Your task to perform on an android device: See recent photos Image 0: 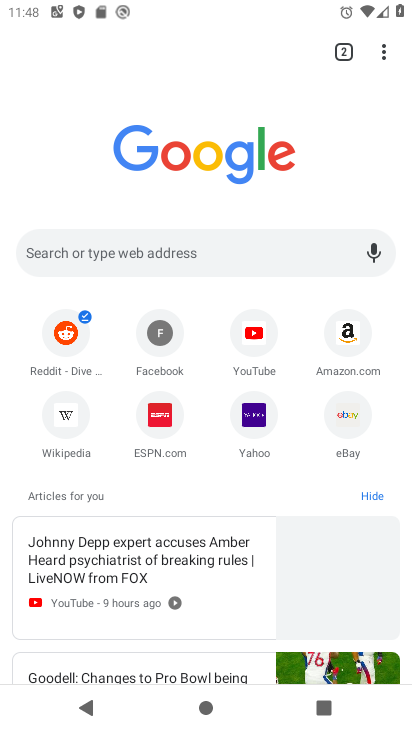
Step 0: press home button
Your task to perform on an android device: See recent photos Image 1: 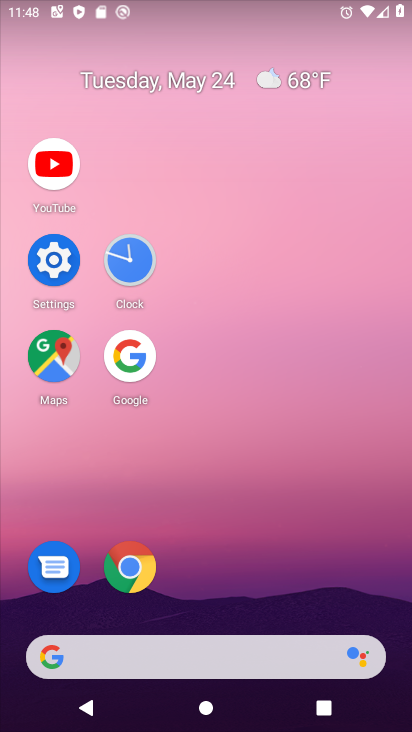
Step 1: drag from (267, 603) to (375, 114)
Your task to perform on an android device: See recent photos Image 2: 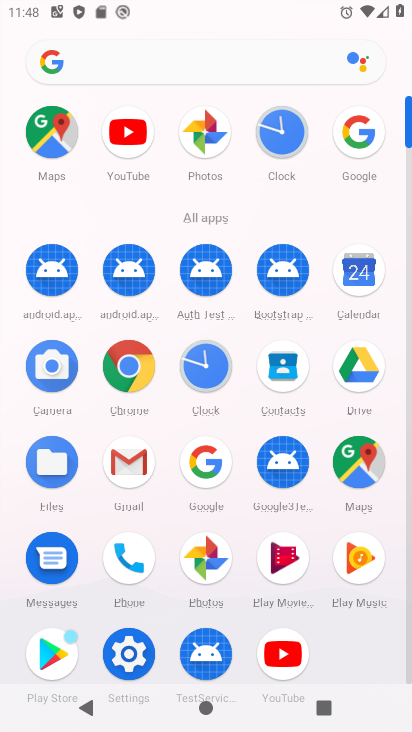
Step 2: drag from (202, 554) to (179, 348)
Your task to perform on an android device: See recent photos Image 3: 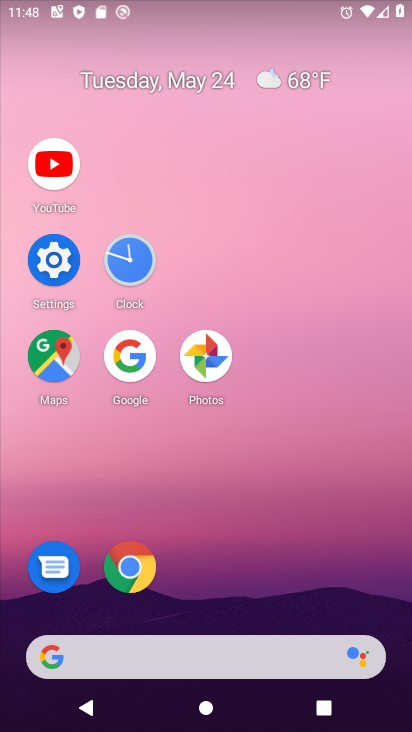
Step 3: click (199, 366)
Your task to perform on an android device: See recent photos Image 4: 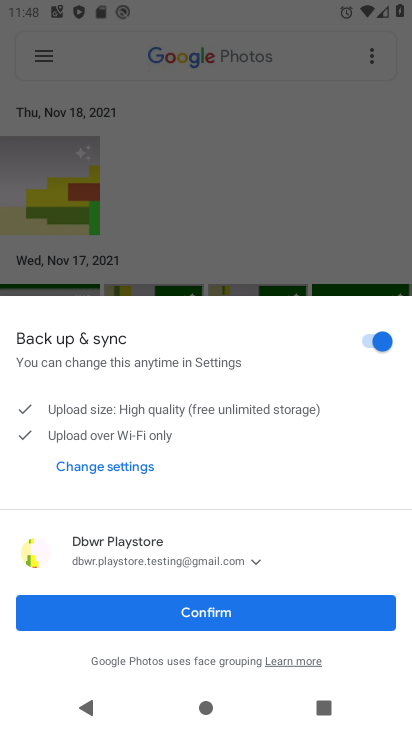
Step 4: click (186, 630)
Your task to perform on an android device: See recent photos Image 5: 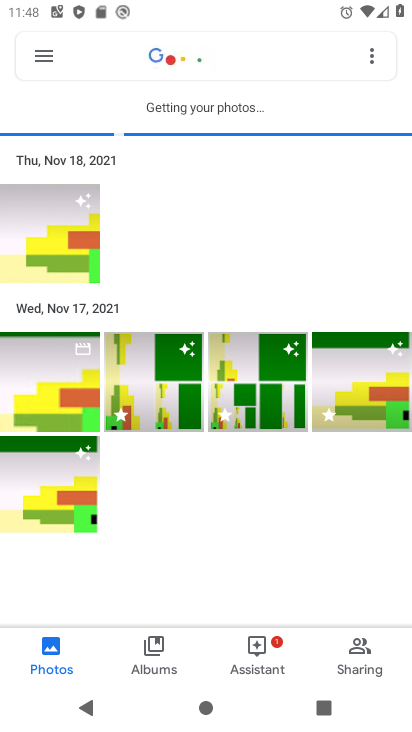
Step 5: task complete